Your task to perform on an android device: Go to ESPN.com Image 0: 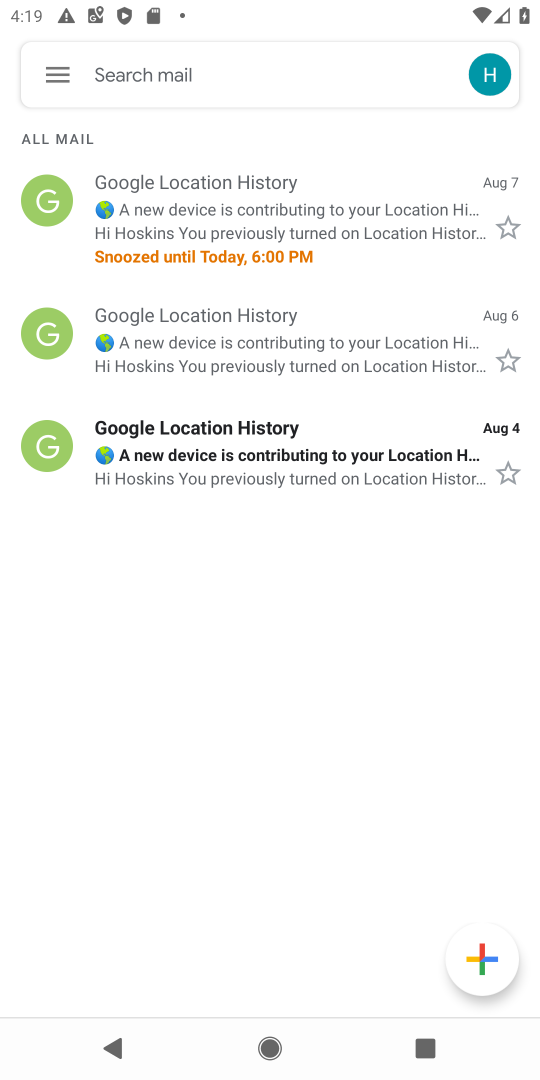
Step 0: press home button
Your task to perform on an android device: Go to ESPN.com Image 1: 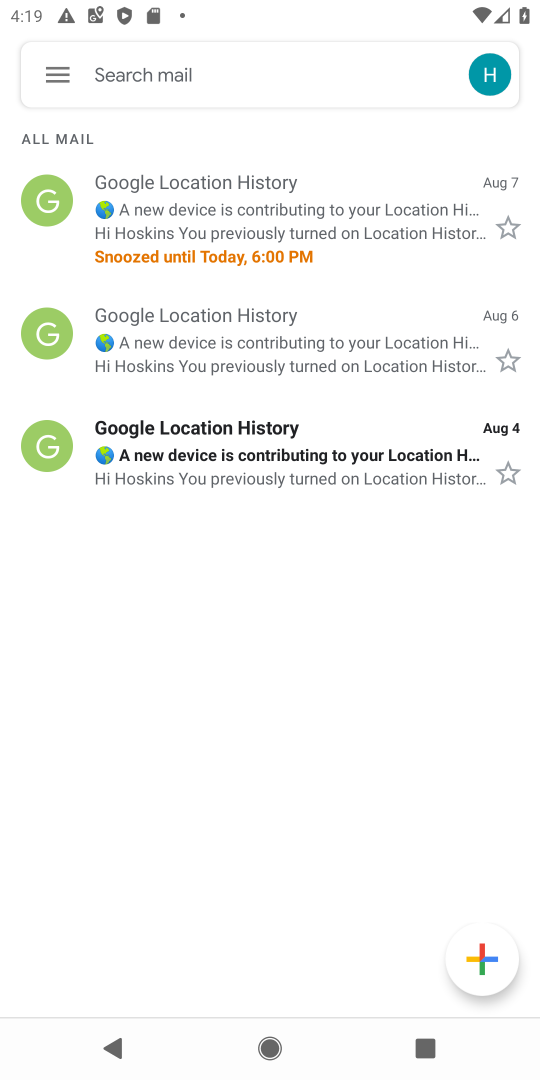
Step 1: press home button
Your task to perform on an android device: Go to ESPN.com Image 2: 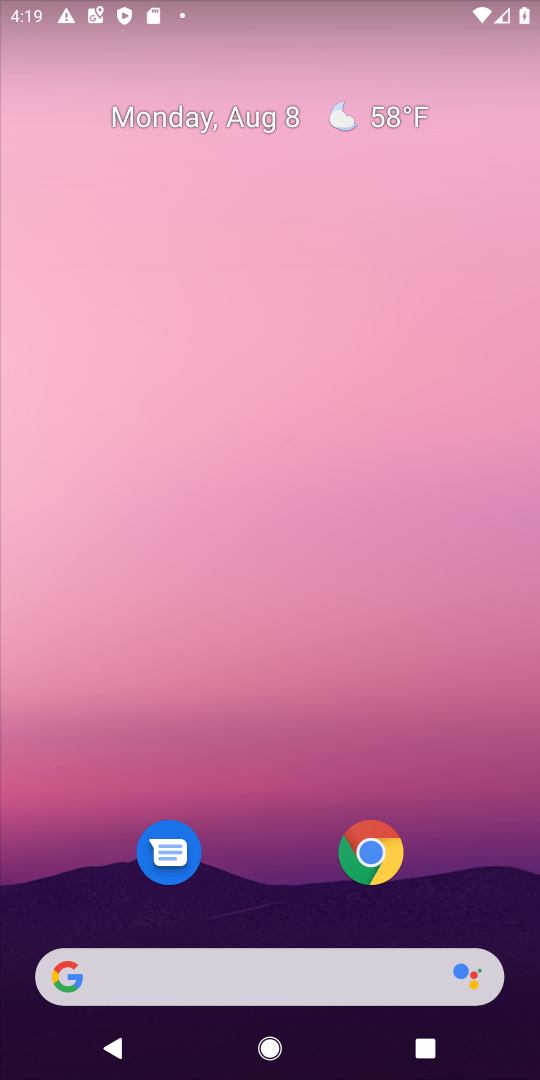
Step 2: drag from (320, 688) to (470, 62)
Your task to perform on an android device: Go to ESPN.com Image 3: 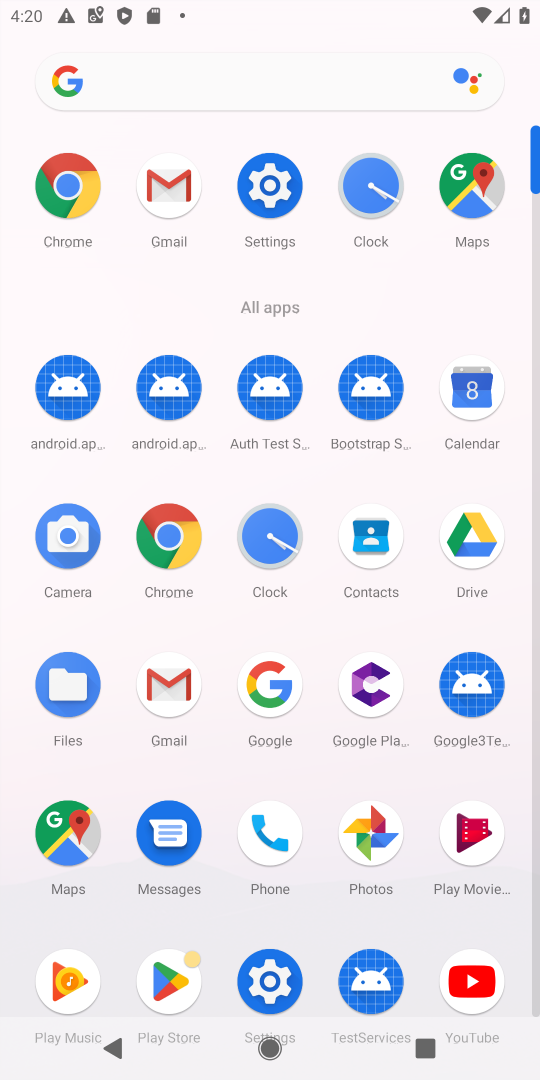
Step 3: click (167, 542)
Your task to perform on an android device: Go to ESPN.com Image 4: 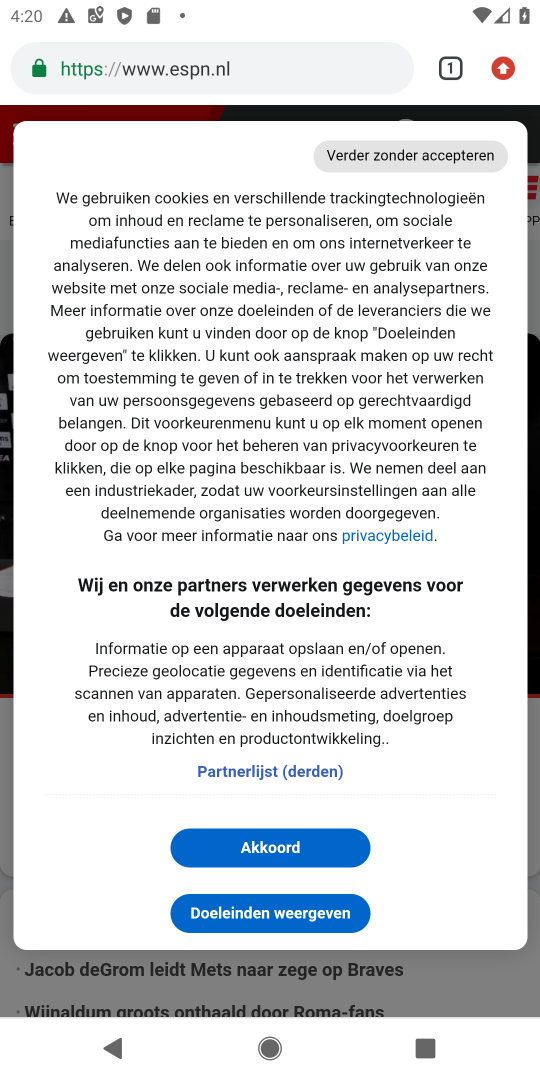
Step 4: task complete